Your task to perform on an android device: Go to battery settings Image 0: 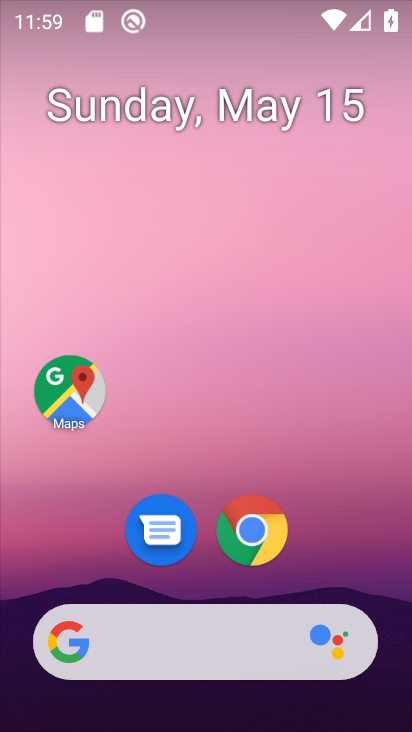
Step 0: drag from (220, 562) to (125, 22)
Your task to perform on an android device: Go to battery settings Image 1: 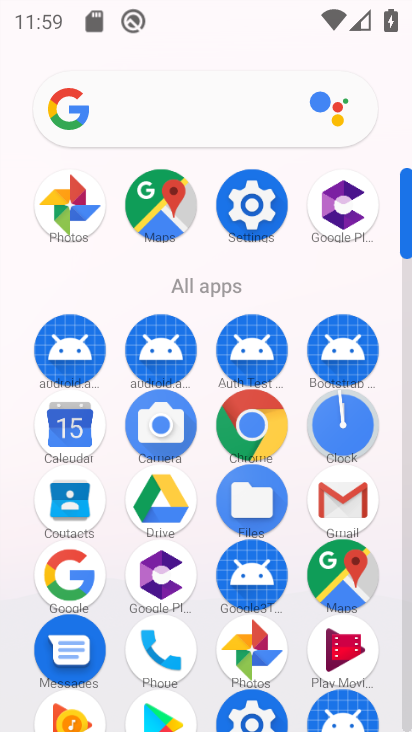
Step 1: click (273, 219)
Your task to perform on an android device: Go to battery settings Image 2: 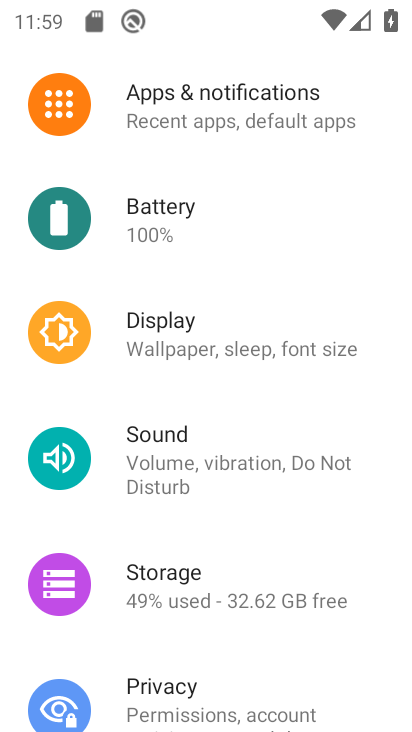
Step 2: click (238, 217)
Your task to perform on an android device: Go to battery settings Image 3: 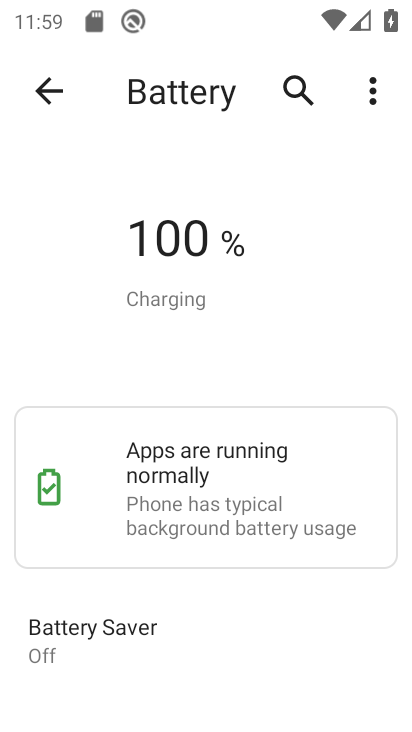
Step 3: click (373, 77)
Your task to perform on an android device: Go to battery settings Image 4: 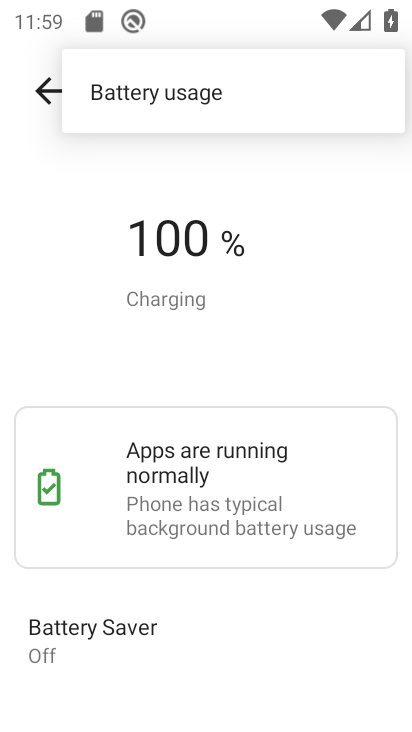
Step 4: click (309, 96)
Your task to perform on an android device: Go to battery settings Image 5: 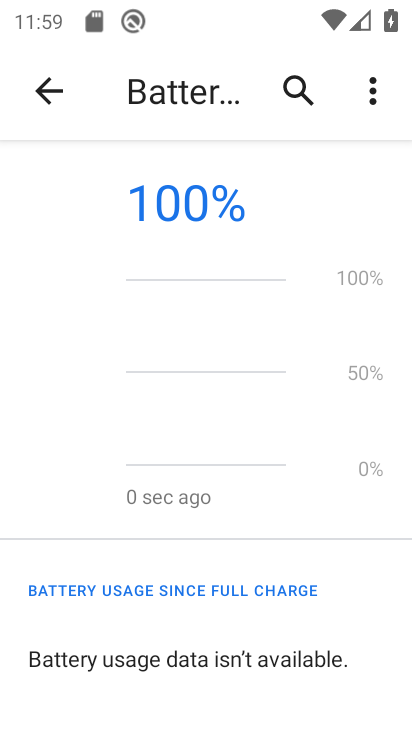
Step 5: task complete